Your task to perform on an android device: create a new album in the google photos Image 0: 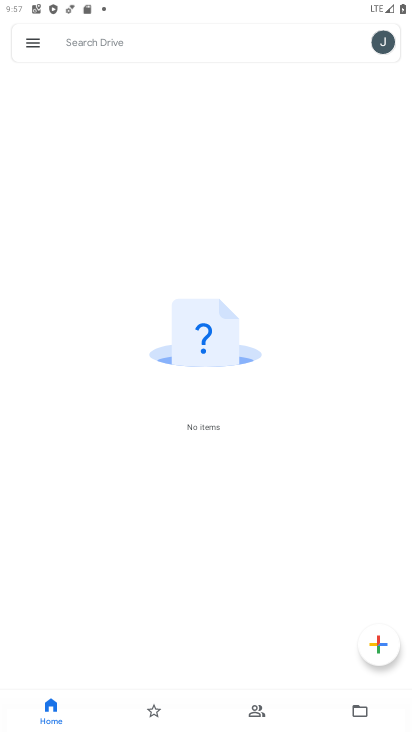
Step 0: press home button
Your task to perform on an android device: create a new album in the google photos Image 1: 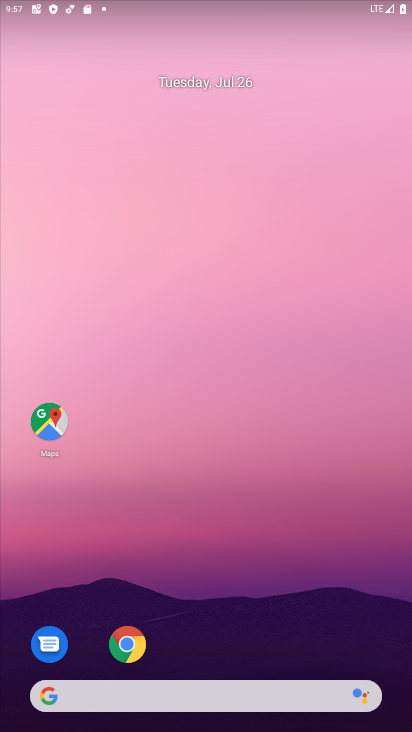
Step 1: drag from (280, 635) to (277, 23)
Your task to perform on an android device: create a new album in the google photos Image 2: 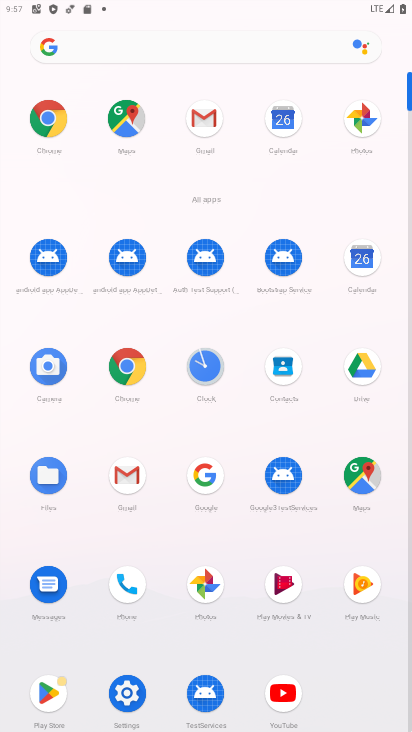
Step 2: click (366, 122)
Your task to perform on an android device: create a new album in the google photos Image 3: 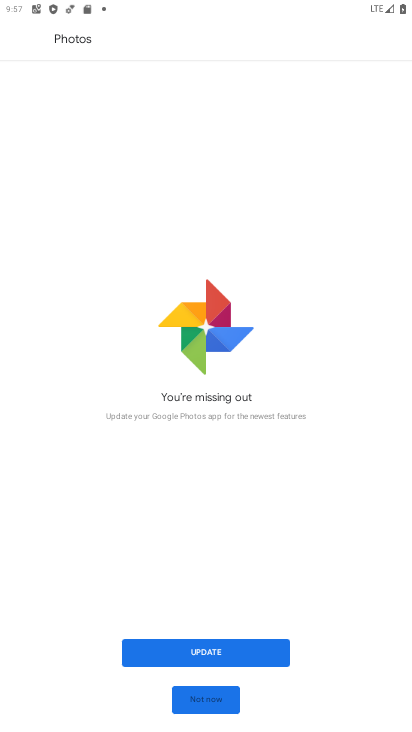
Step 3: click (197, 706)
Your task to perform on an android device: create a new album in the google photos Image 4: 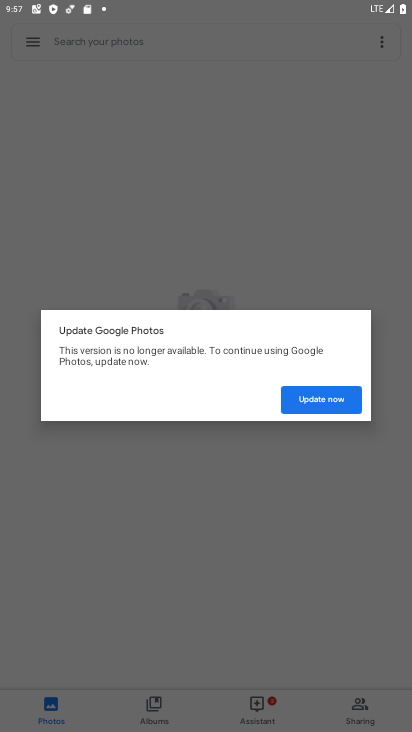
Step 4: click (333, 389)
Your task to perform on an android device: create a new album in the google photos Image 5: 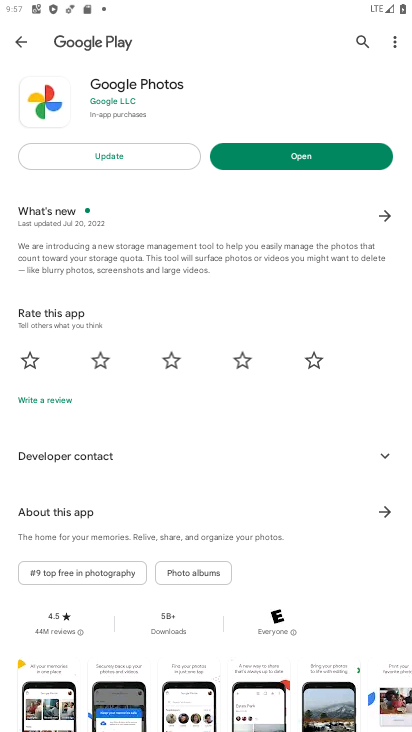
Step 5: click (308, 160)
Your task to perform on an android device: create a new album in the google photos Image 6: 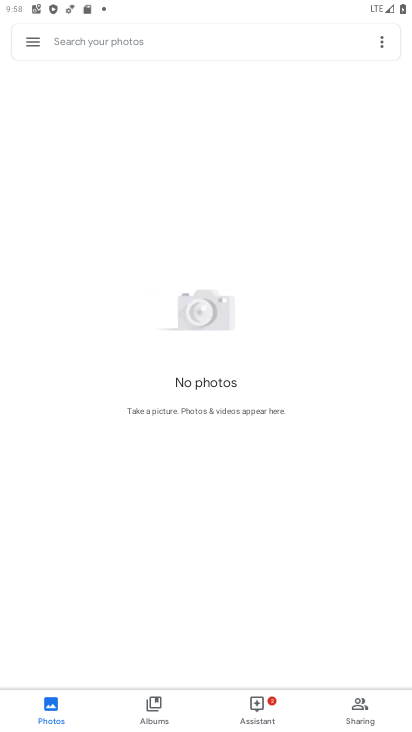
Step 6: task complete